Your task to perform on an android device: move an email to a new category in the gmail app Image 0: 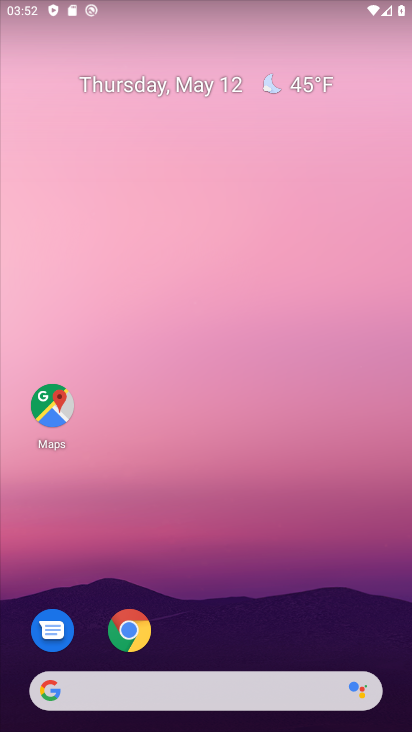
Step 0: drag from (199, 638) to (283, 117)
Your task to perform on an android device: move an email to a new category in the gmail app Image 1: 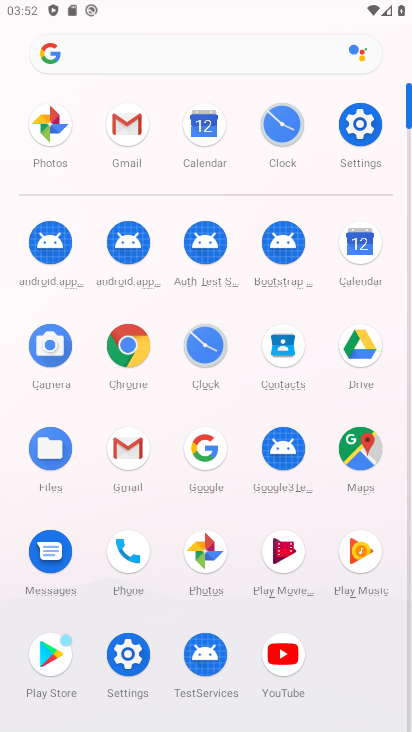
Step 1: click (123, 438)
Your task to perform on an android device: move an email to a new category in the gmail app Image 2: 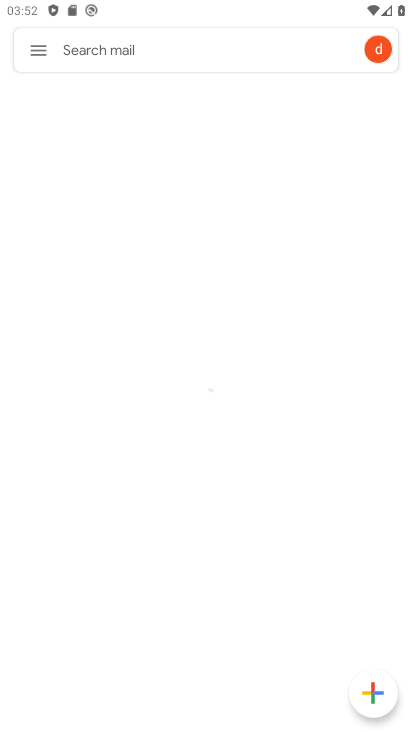
Step 2: click (46, 43)
Your task to perform on an android device: move an email to a new category in the gmail app Image 3: 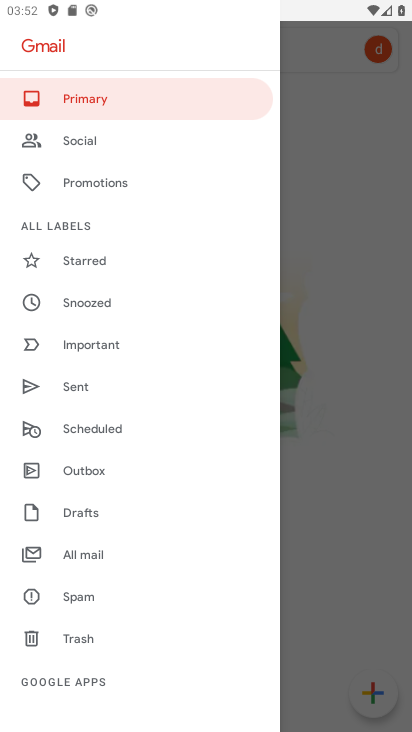
Step 3: click (100, 555)
Your task to perform on an android device: move an email to a new category in the gmail app Image 4: 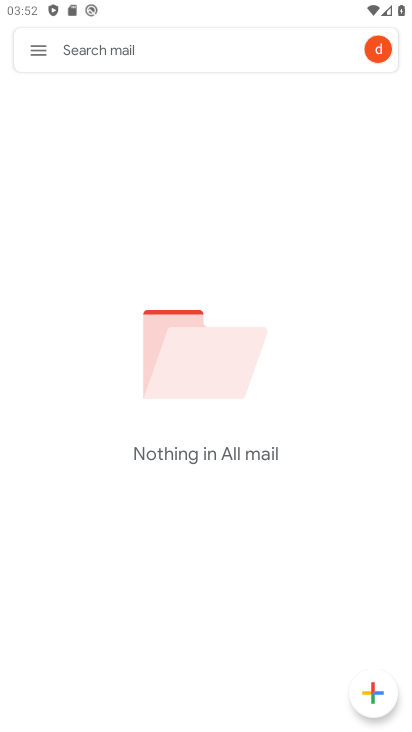
Step 4: task complete